Your task to perform on an android device: add a contact Image 0: 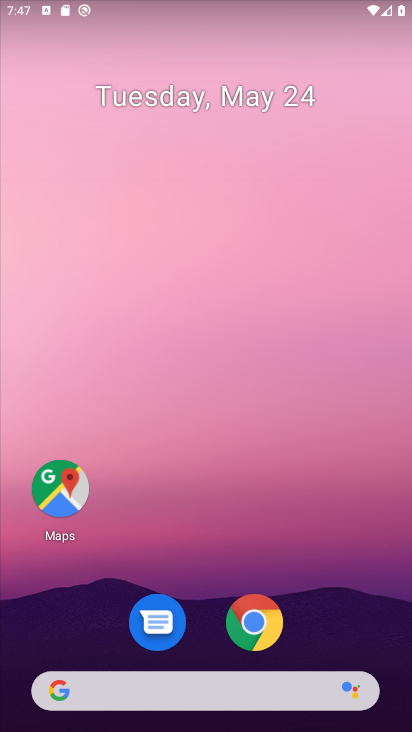
Step 0: drag from (337, 714) to (247, 71)
Your task to perform on an android device: add a contact Image 1: 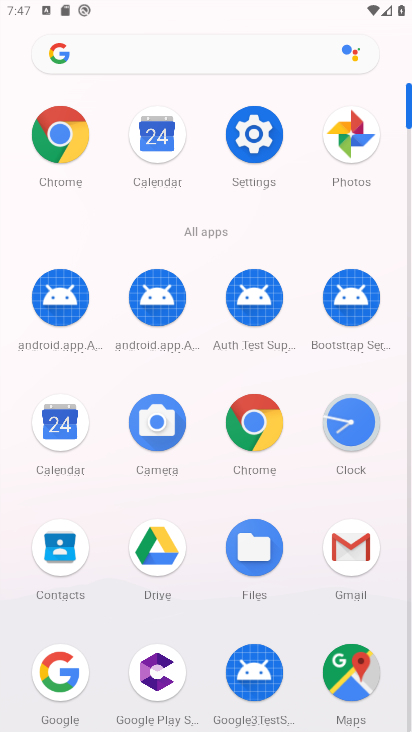
Step 1: click (60, 435)
Your task to perform on an android device: add a contact Image 2: 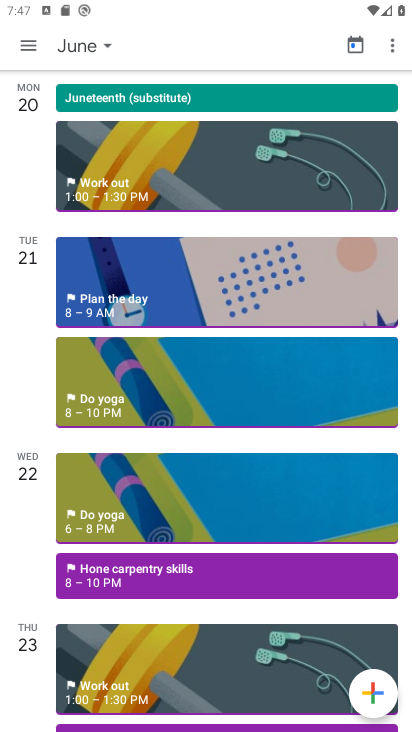
Step 2: press home button
Your task to perform on an android device: add a contact Image 3: 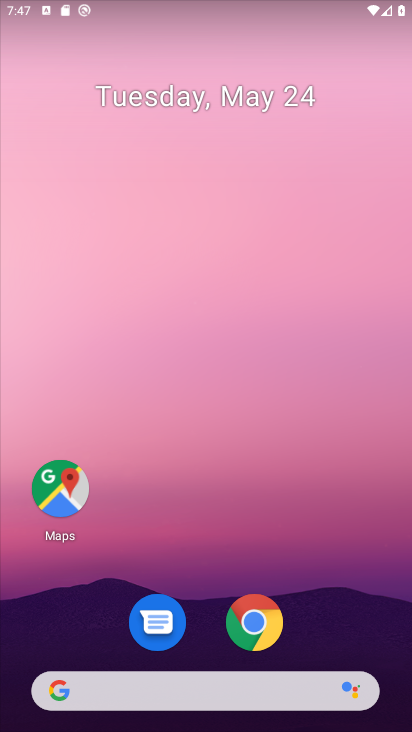
Step 3: drag from (252, 598) to (345, 91)
Your task to perform on an android device: add a contact Image 4: 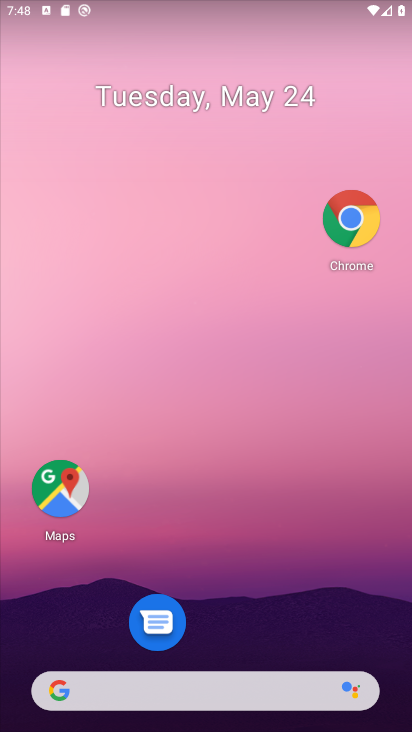
Step 4: drag from (256, 446) to (366, 18)
Your task to perform on an android device: add a contact Image 5: 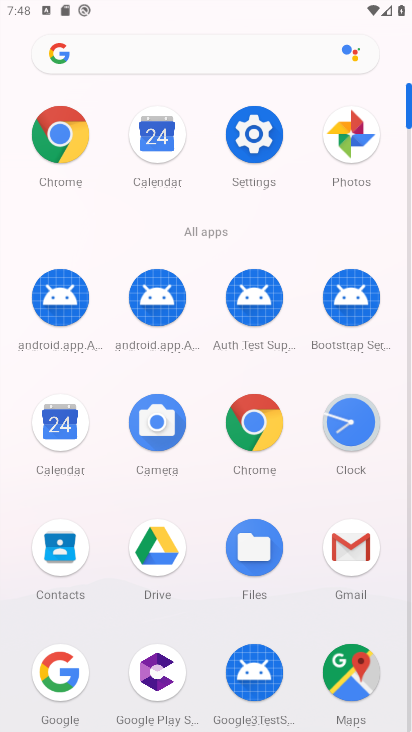
Step 5: drag from (106, 620) to (120, 411)
Your task to perform on an android device: add a contact Image 6: 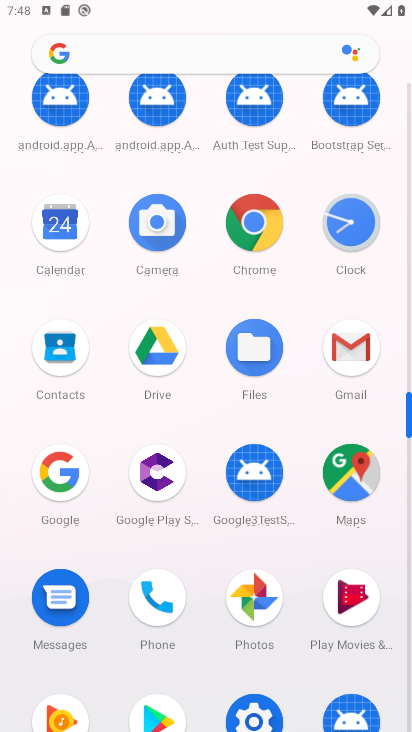
Step 6: click (161, 604)
Your task to perform on an android device: add a contact Image 7: 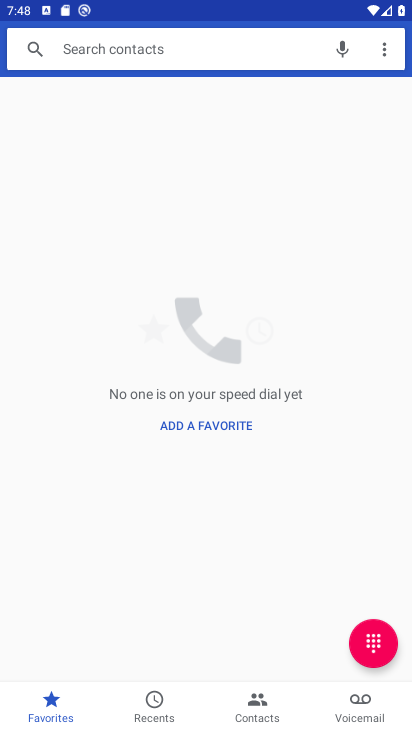
Step 7: click (257, 702)
Your task to perform on an android device: add a contact Image 8: 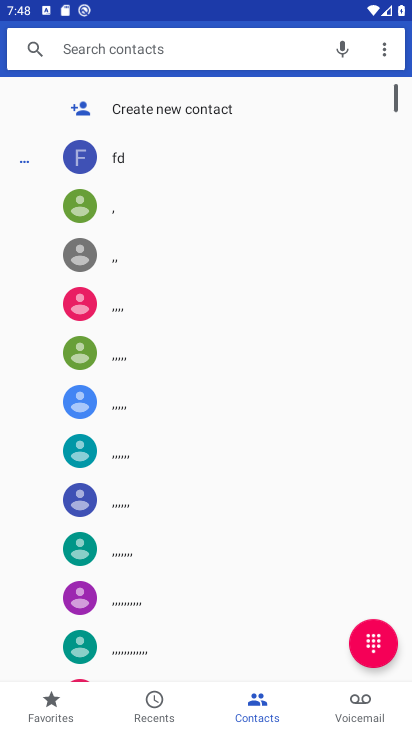
Step 8: click (143, 106)
Your task to perform on an android device: add a contact Image 9: 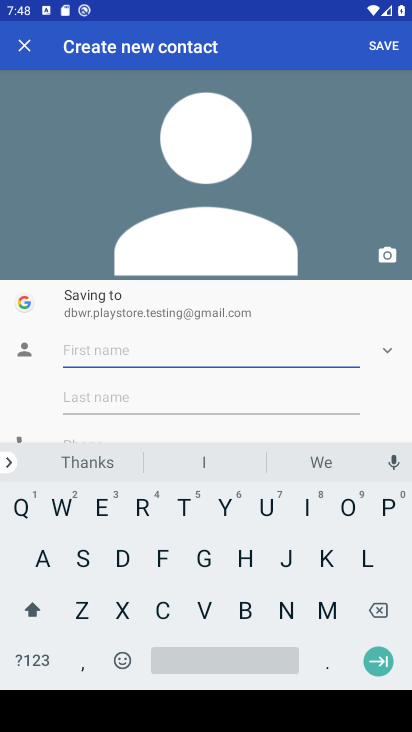
Step 9: click (162, 538)
Your task to perform on an android device: add a contact Image 10: 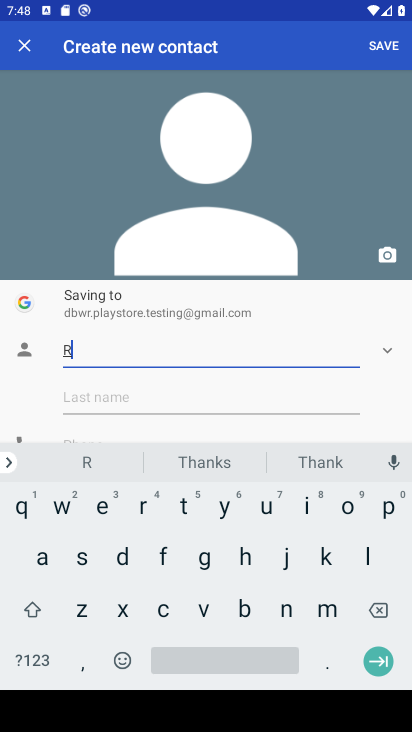
Step 10: click (104, 506)
Your task to perform on an android device: add a contact Image 11: 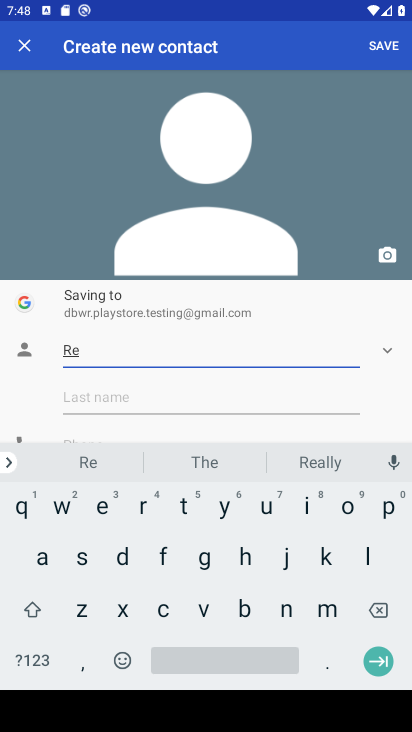
Step 11: click (83, 574)
Your task to perform on an android device: add a contact Image 12: 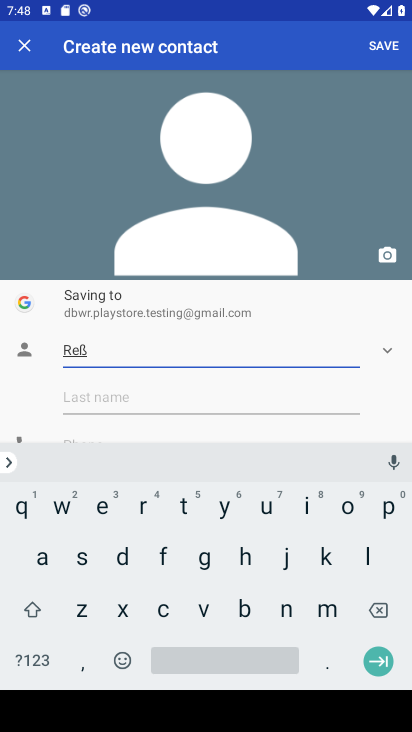
Step 12: click (114, 434)
Your task to perform on an android device: add a contact Image 13: 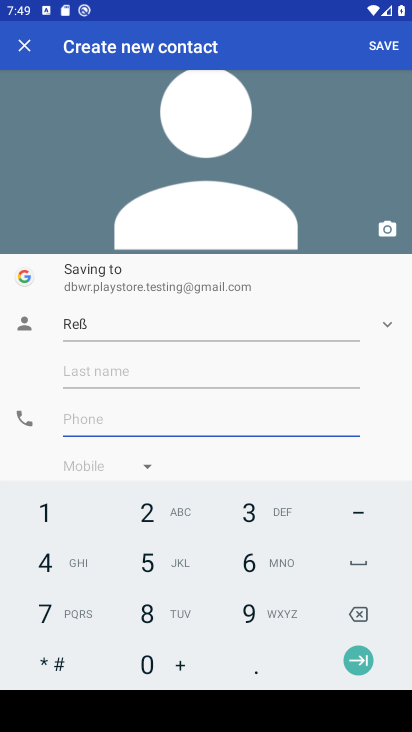
Step 13: click (149, 554)
Your task to perform on an android device: add a contact Image 14: 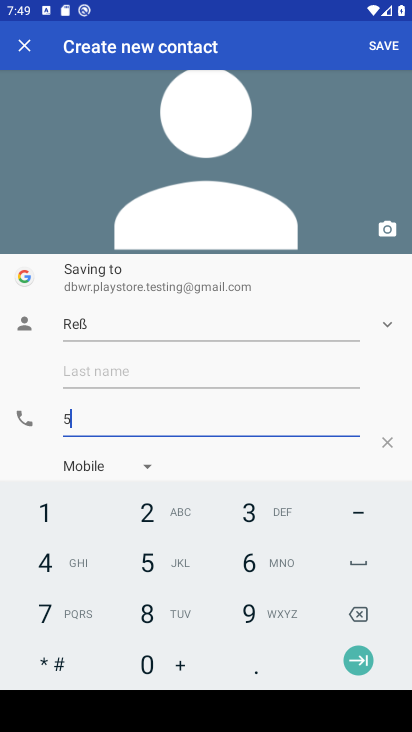
Step 14: click (57, 570)
Your task to perform on an android device: add a contact Image 15: 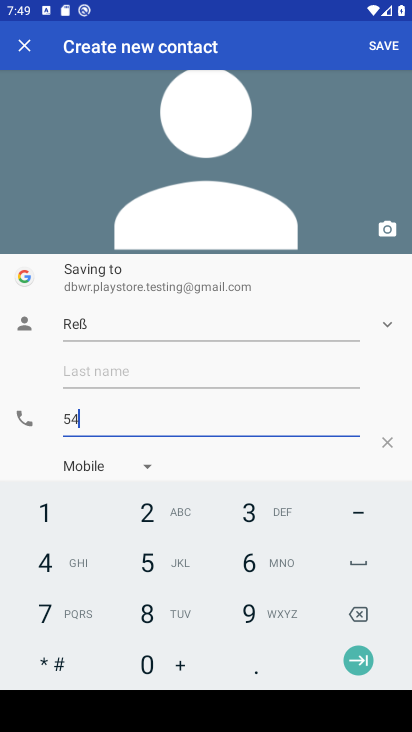
Step 15: click (134, 614)
Your task to perform on an android device: add a contact Image 16: 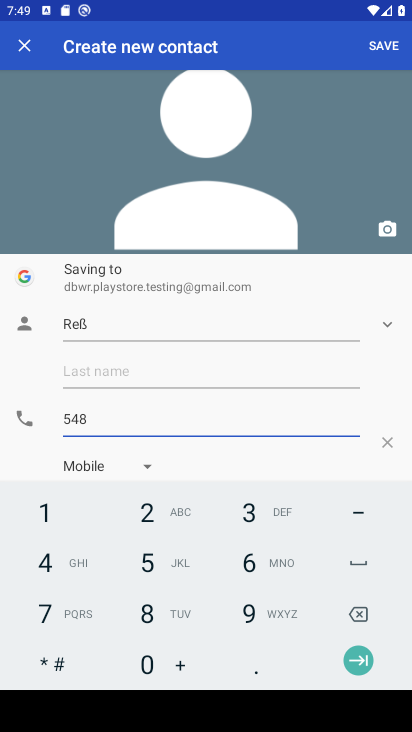
Step 16: click (147, 522)
Your task to perform on an android device: add a contact Image 17: 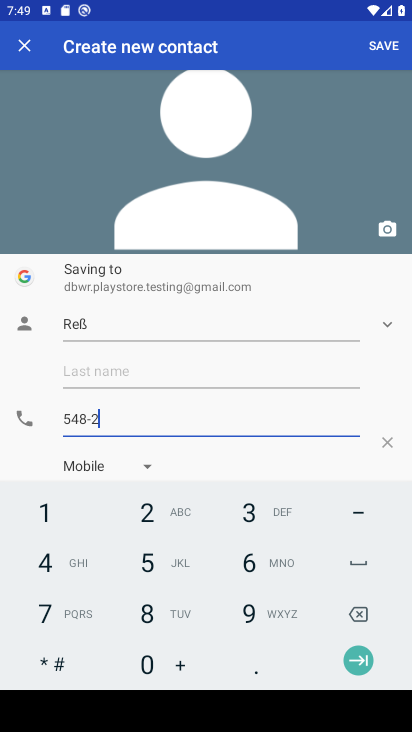
Step 17: click (249, 570)
Your task to perform on an android device: add a contact Image 18: 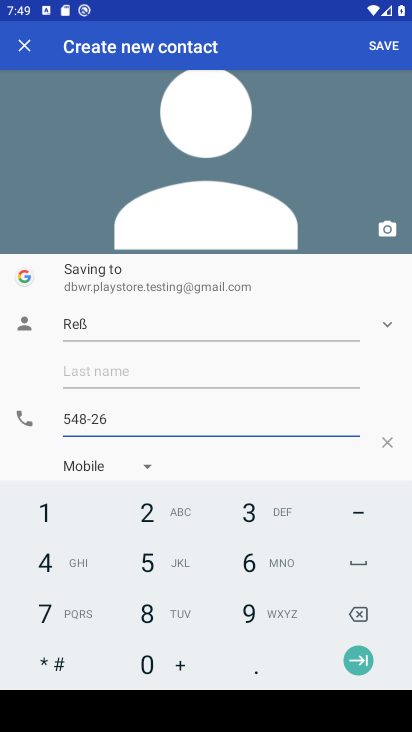
Step 18: click (240, 618)
Your task to perform on an android device: add a contact Image 19: 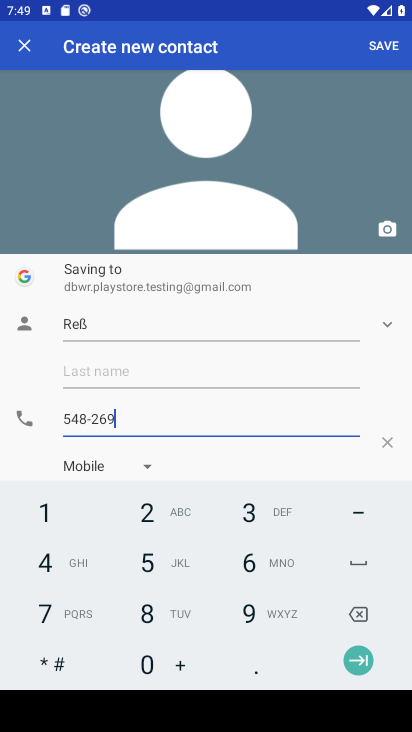
Step 19: click (164, 601)
Your task to perform on an android device: add a contact Image 20: 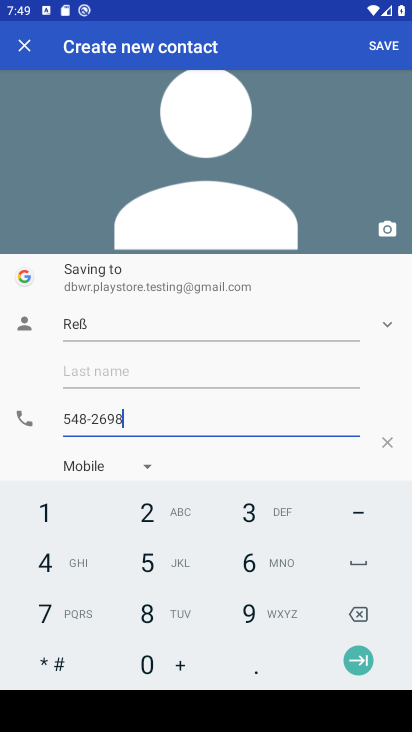
Step 20: click (387, 44)
Your task to perform on an android device: add a contact Image 21: 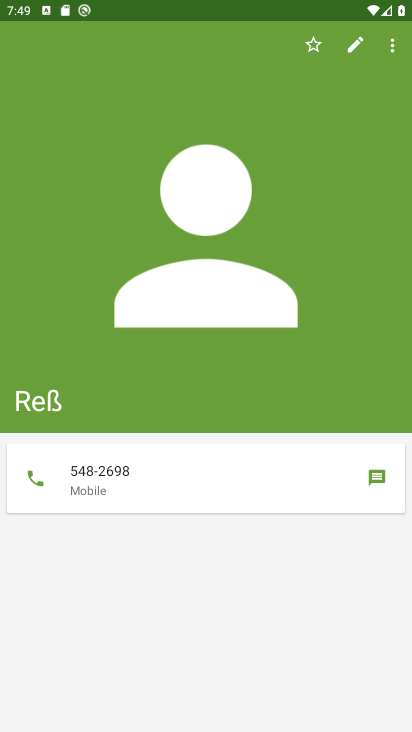
Step 21: task complete